Your task to perform on an android device: Open the map Image 0: 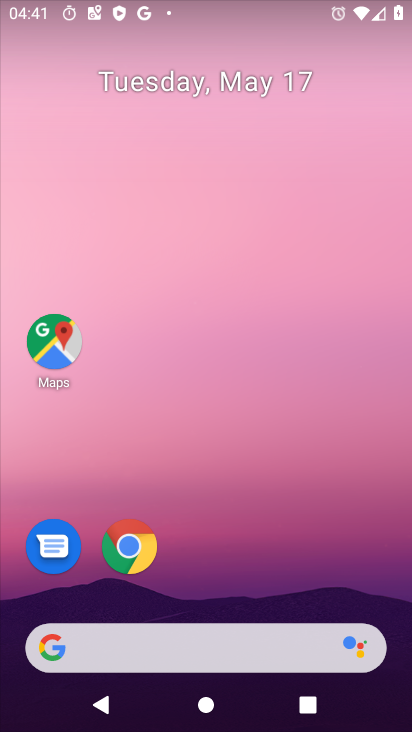
Step 0: click (78, 337)
Your task to perform on an android device: Open the map Image 1: 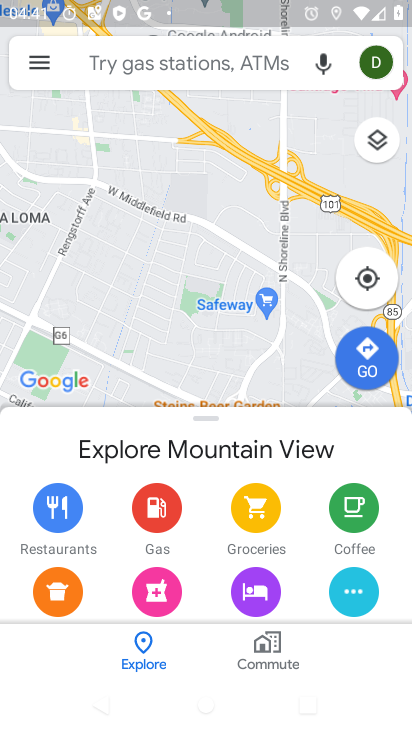
Step 1: task complete